Your task to perform on an android device: Go to Android settings Image 0: 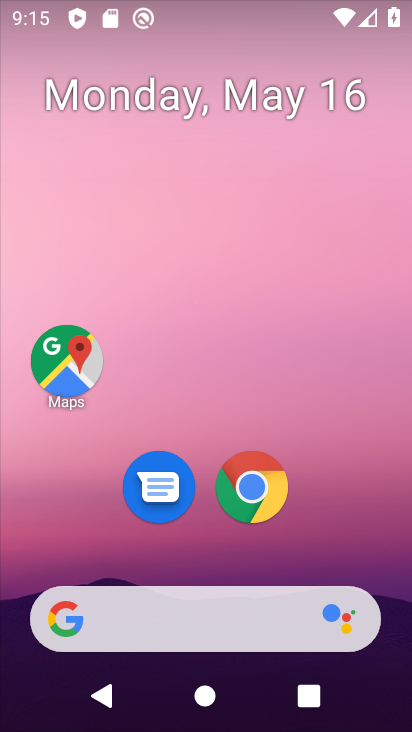
Step 0: drag from (211, 298) to (220, 104)
Your task to perform on an android device: Go to Android settings Image 1: 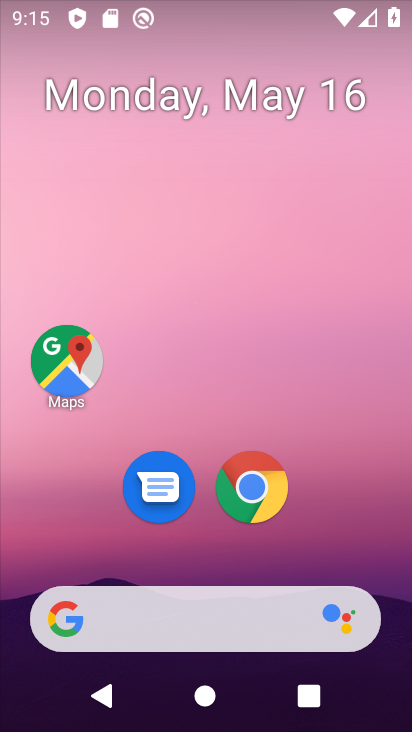
Step 1: click (240, 105)
Your task to perform on an android device: Go to Android settings Image 2: 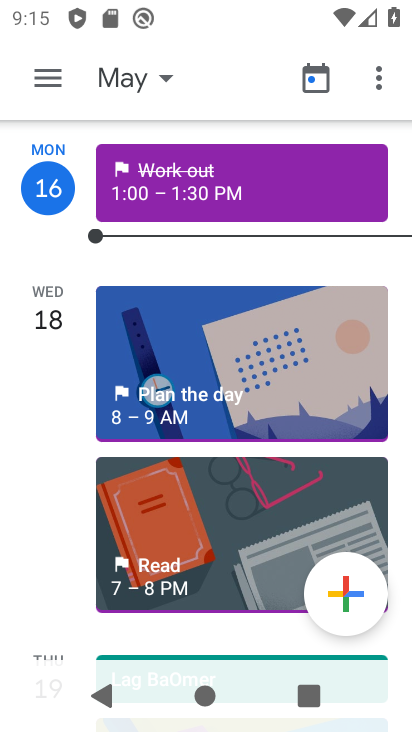
Step 2: press home button
Your task to perform on an android device: Go to Android settings Image 3: 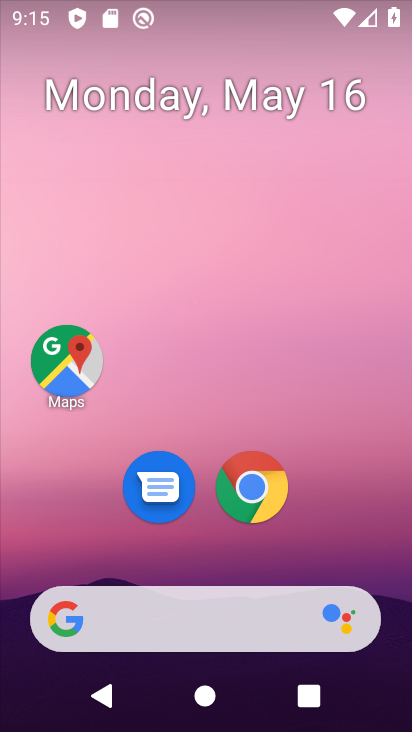
Step 3: drag from (247, 556) to (288, 108)
Your task to perform on an android device: Go to Android settings Image 4: 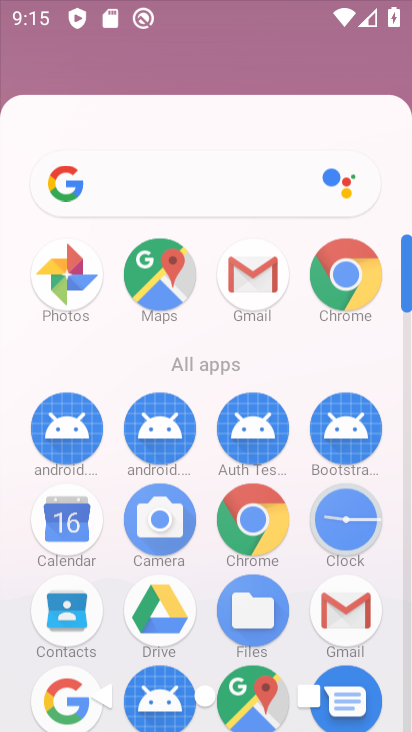
Step 4: drag from (232, 193) to (241, 108)
Your task to perform on an android device: Go to Android settings Image 5: 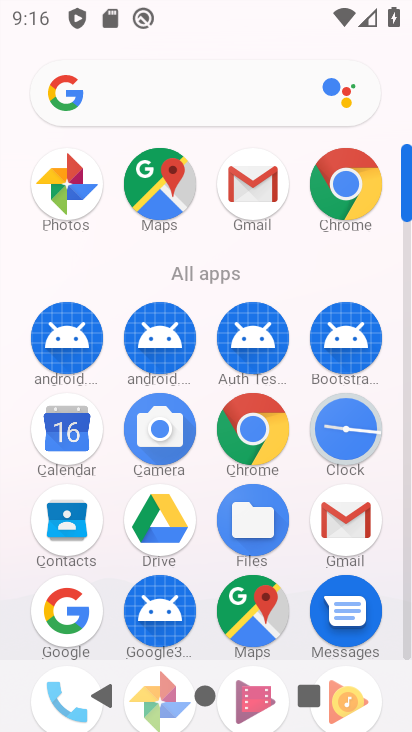
Step 5: drag from (203, 495) to (251, 98)
Your task to perform on an android device: Go to Android settings Image 6: 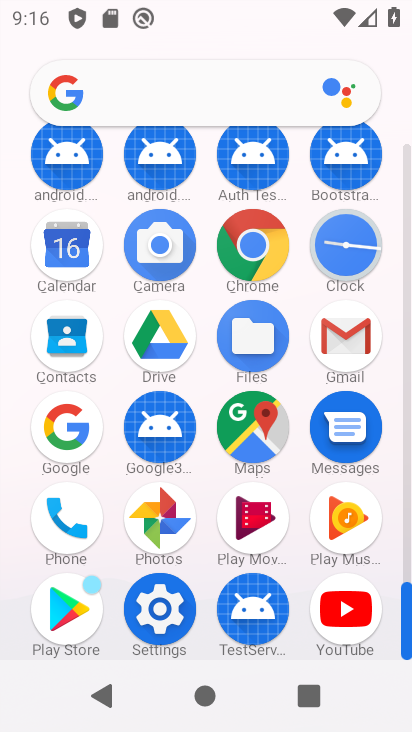
Step 6: drag from (156, 590) to (78, 182)
Your task to perform on an android device: Go to Android settings Image 7: 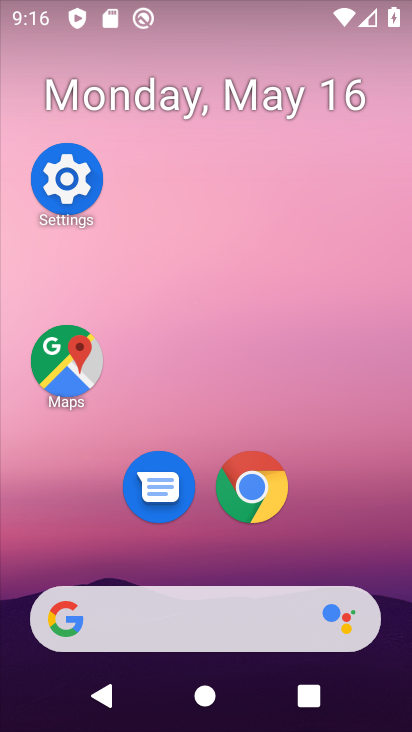
Step 7: click (61, 175)
Your task to perform on an android device: Go to Android settings Image 8: 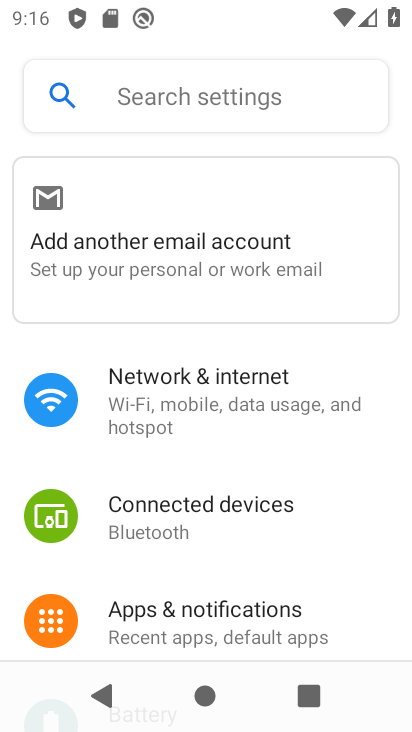
Step 8: task complete